Your task to perform on an android device: turn notification dots off Image 0: 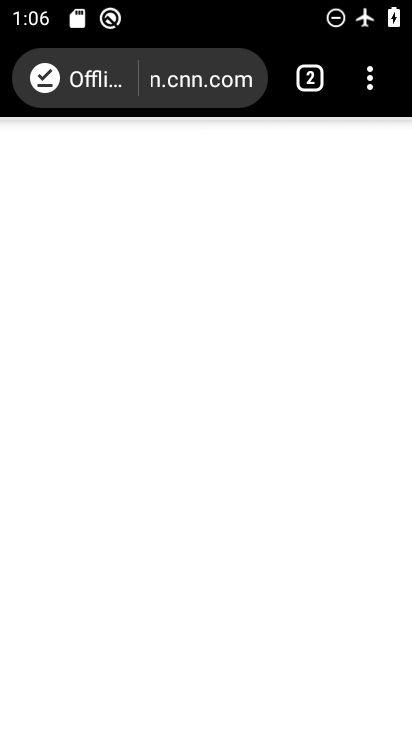
Step 0: press home button
Your task to perform on an android device: turn notification dots off Image 1: 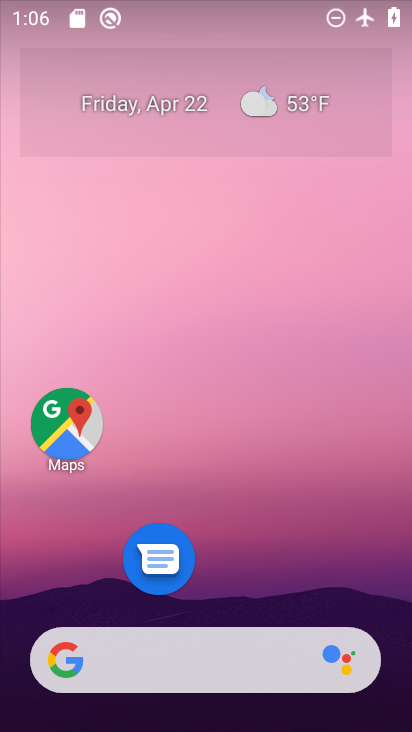
Step 1: drag from (221, 709) to (213, 175)
Your task to perform on an android device: turn notification dots off Image 2: 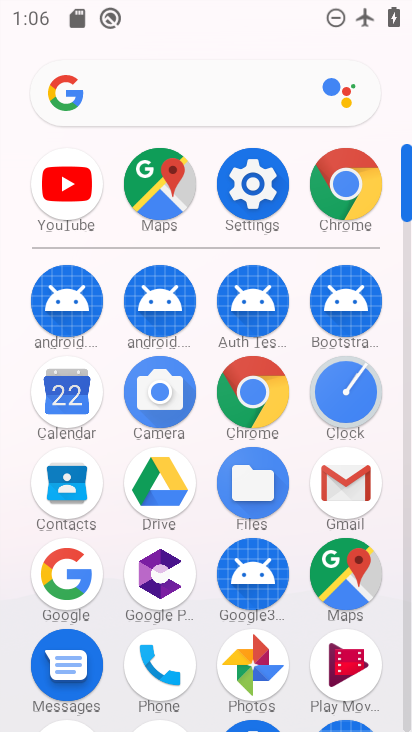
Step 2: click (252, 185)
Your task to perform on an android device: turn notification dots off Image 3: 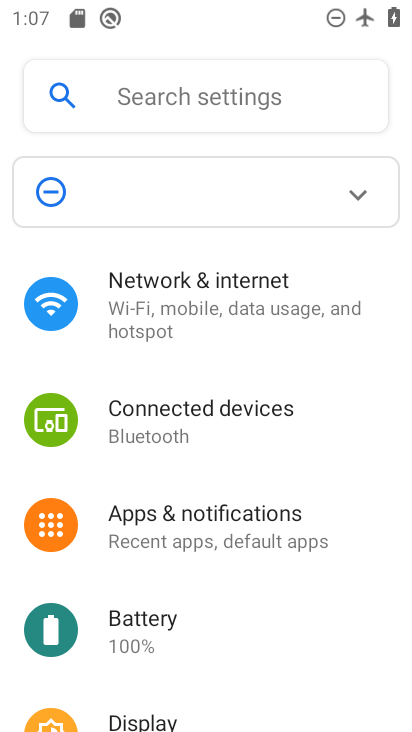
Step 3: click (189, 518)
Your task to perform on an android device: turn notification dots off Image 4: 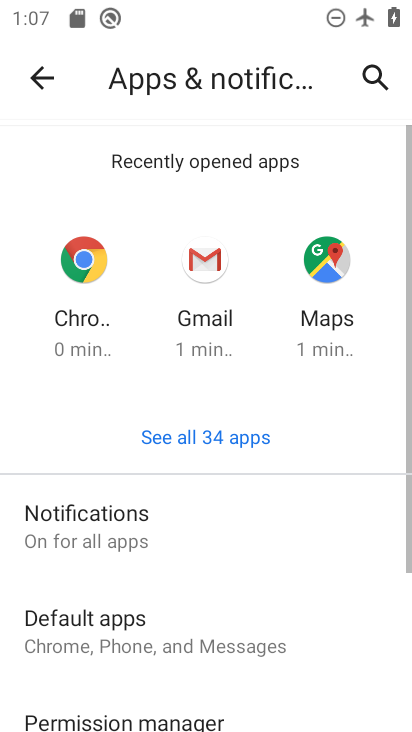
Step 4: click (85, 537)
Your task to perform on an android device: turn notification dots off Image 5: 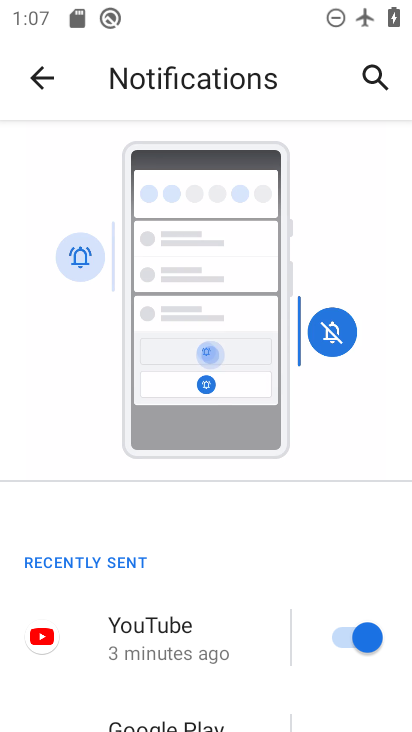
Step 5: drag from (196, 706) to (195, 187)
Your task to perform on an android device: turn notification dots off Image 6: 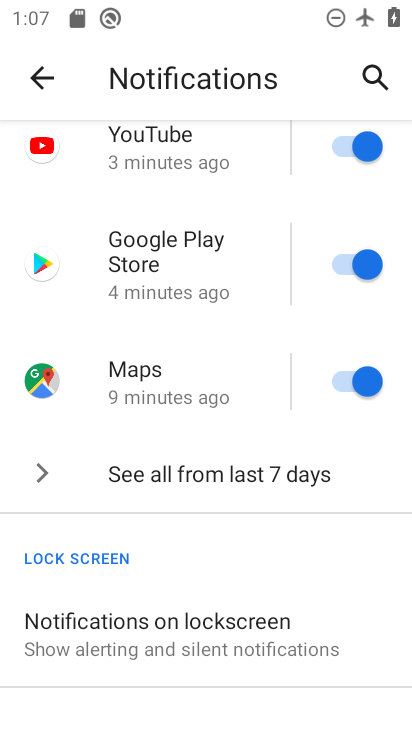
Step 6: drag from (237, 615) to (223, 231)
Your task to perform on an android device: turn notification dots off Image 7: 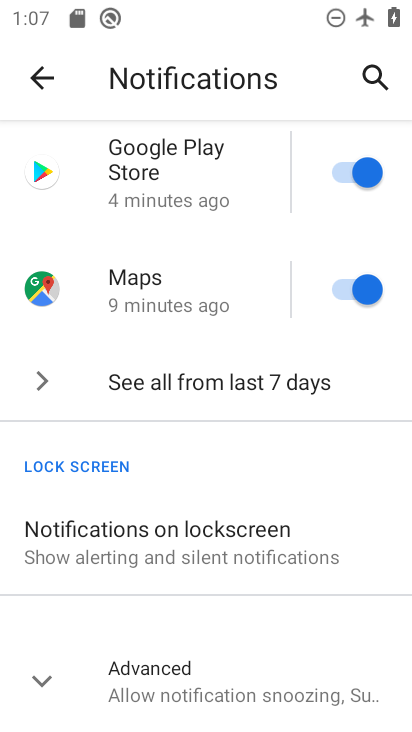
Step 7: click (181, 680)
Your task to perform on an android device: turn notification dots off Image 8: 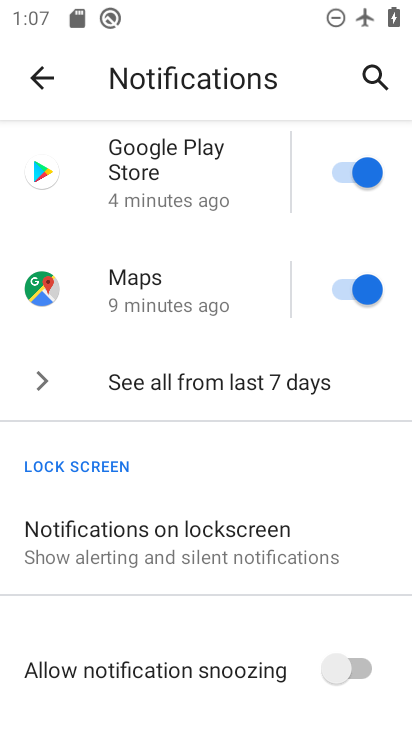
Step 8: drag from (237, 670) to (236, 448)
Your task to perform on an android device: turn notification dots off Image 9: 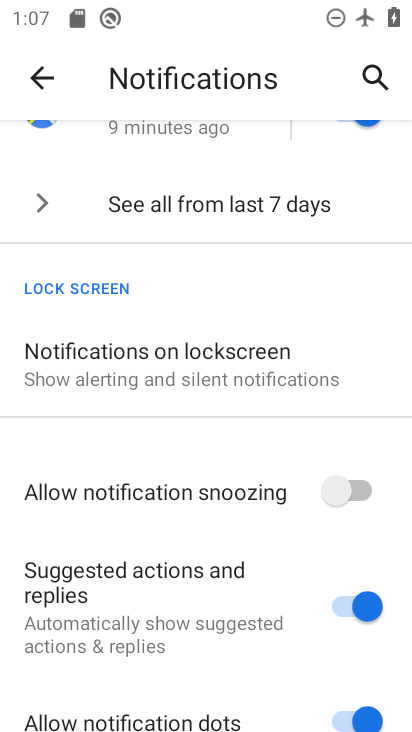
Step 9: drag from (205, 691) to (209, 387)
Your task to perform on an android device: turn notification dots off Image 10: 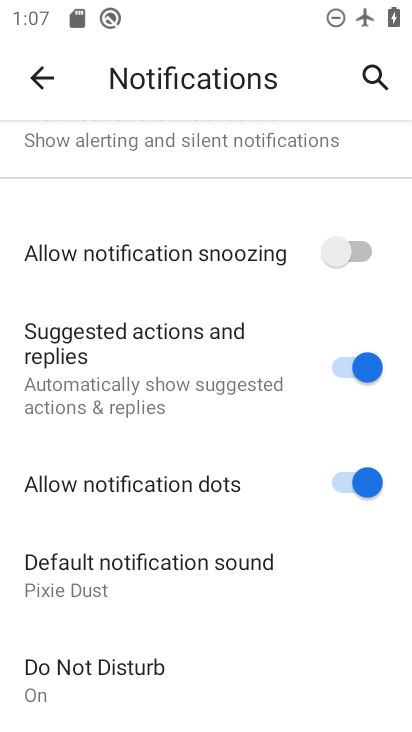
Step 10: drag from (196, 672) to (203, 288)
Your task to perform on an android device: turn notification dots off Image 11: 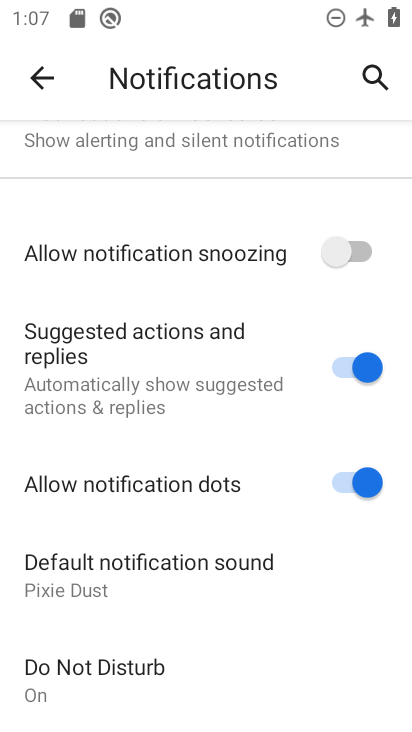
Step 11: click (351, 475)
Your task to perform on an android device: turn notification dots off Image 12: 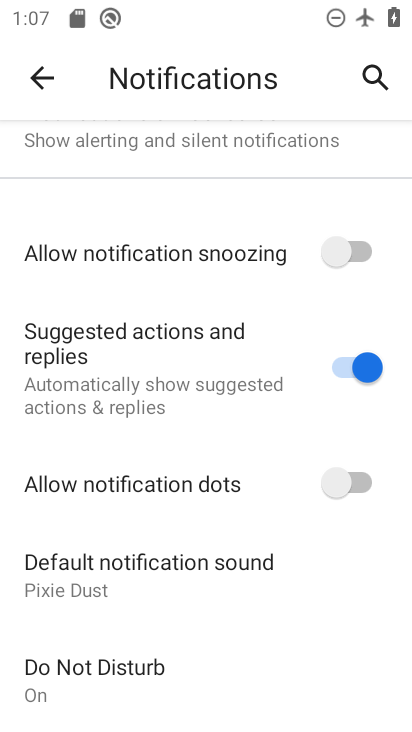
Step 12: task complete